Your task to perform on an android device: set the stopwatch Image 0: 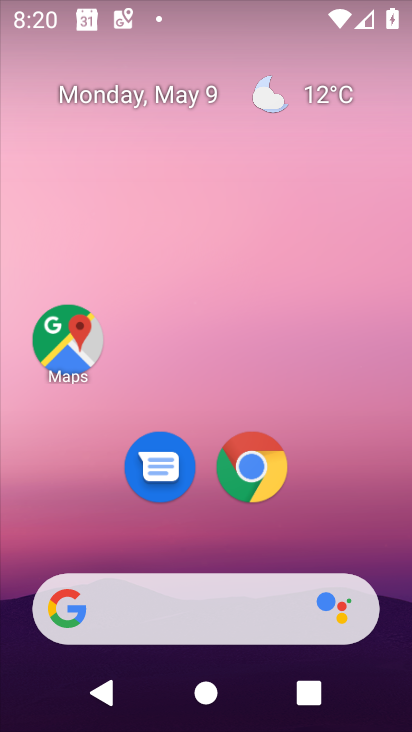
Step 0: drag from (365, 566) to (374, 15)
Your task to perform on an android device: set the stopwatch Image 1: 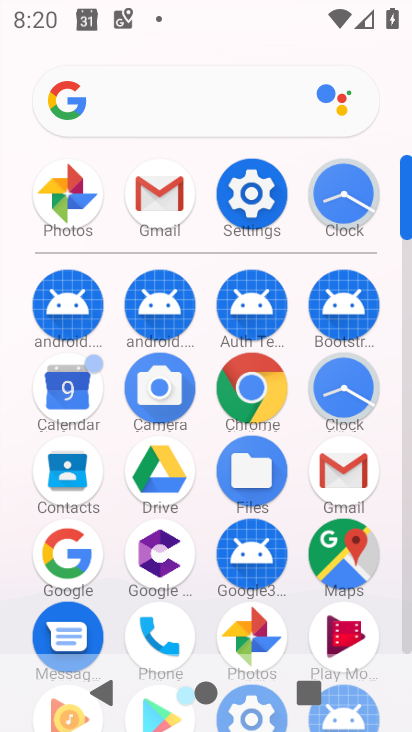
Step 1: click (339, 194)
Your task to perform on an android device: set the stopwatch Image 2: 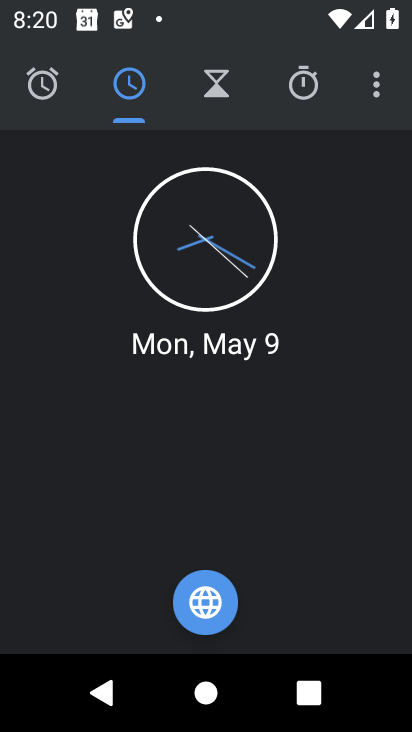
Step 2: click (307, 91)
Your task to perform on an android device: set the stopwatch Image 3: 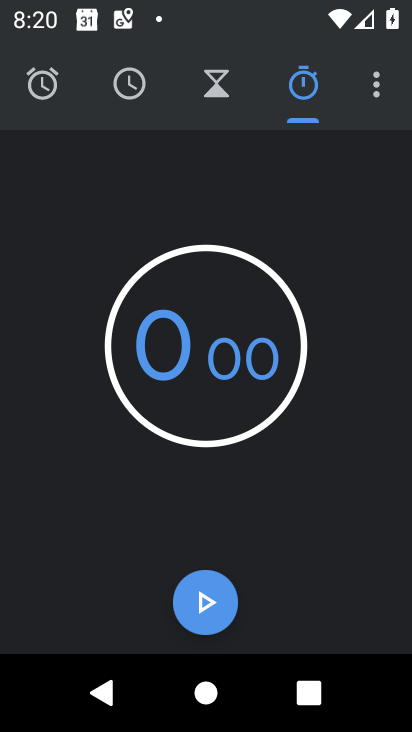
Step 3: click (206, 628)
Your task to perform on an android device: set the stopwatch Image 4: 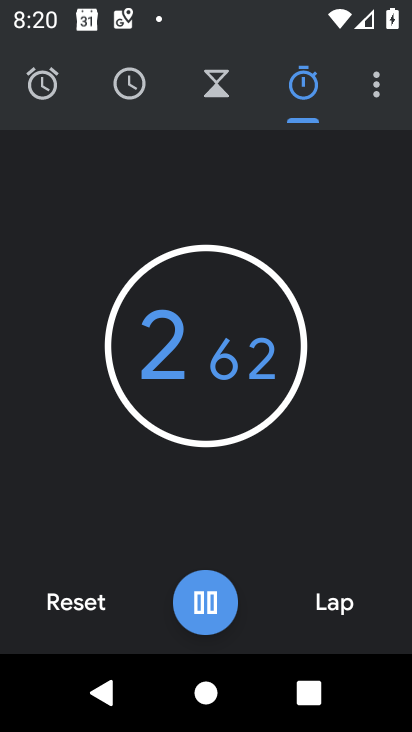
Step 4: click (210, 613)
Your task to perform on an android device: set the stopwatch Image 5: 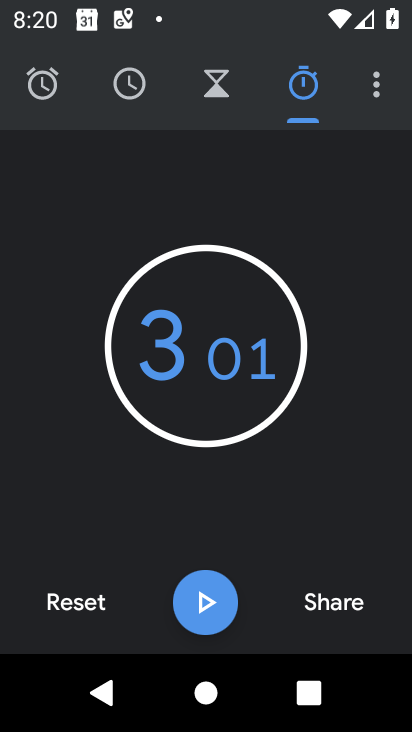
Step 5: task complete